Your task to perform on an android device: Add apple airpods pro to the cart on costco.com, then select checkout. Image 0: 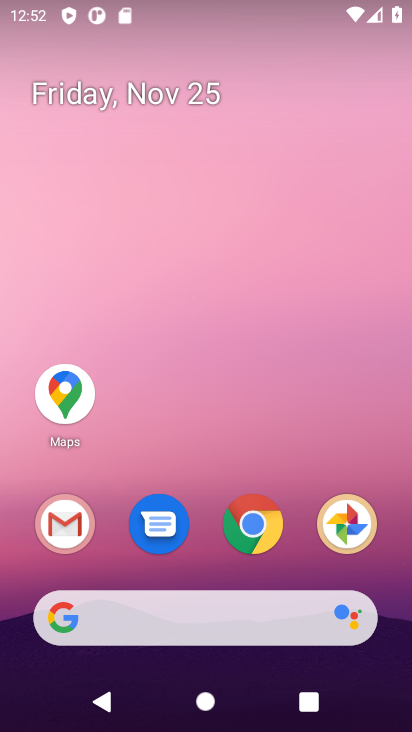
Step 0: click (254, 526)
Your task to perform on an android device: Add apple airpods pro to the cart on costco.com, then select checkout. Image 1: 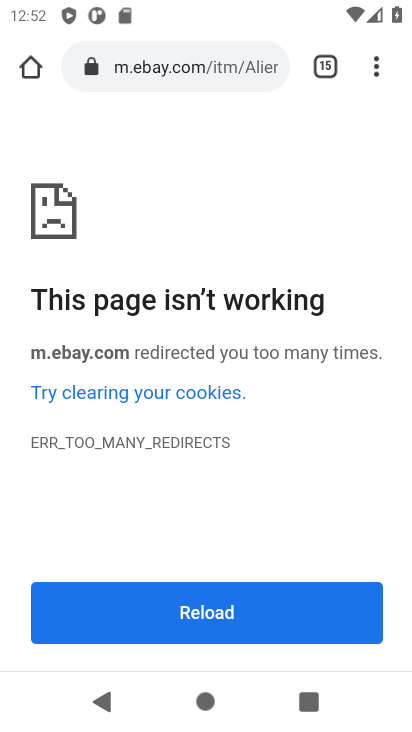
Step 1: click (160, 75)
Your task to perform on an android device: Add apple airpods pro to the cart on costco.com, then select checkout. Image 2: 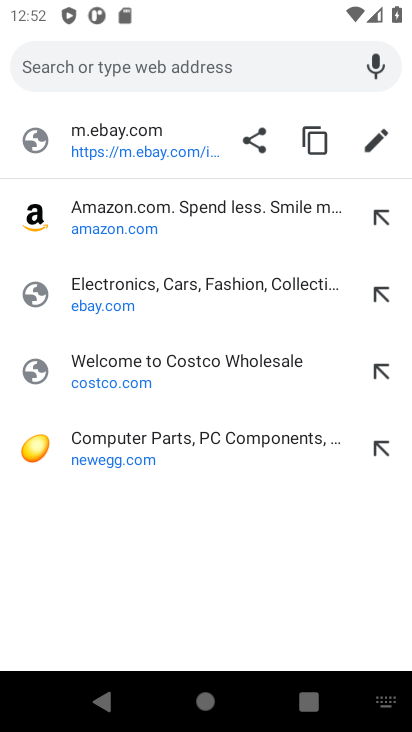
Step 2: click (90, 377)
Your task to perform on an android device: Add apple airpods pro to the cart on costco.com, then select checkout. Image 3: 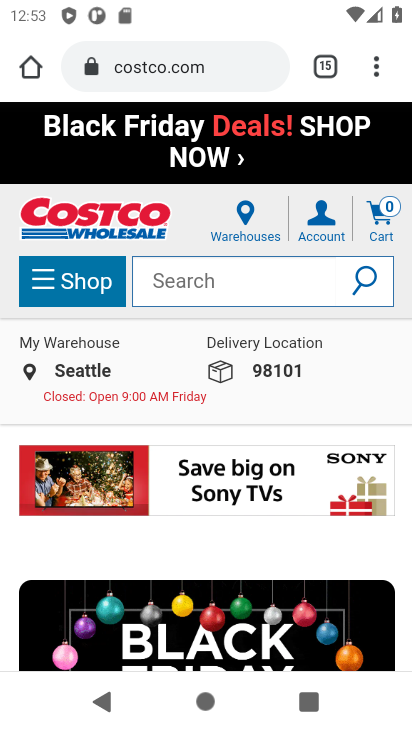
Step 3: click (192, 288)
Your task to perform on an android device: Add apple airpods pro to the cart on costco.com, then select checkout. Image 4: 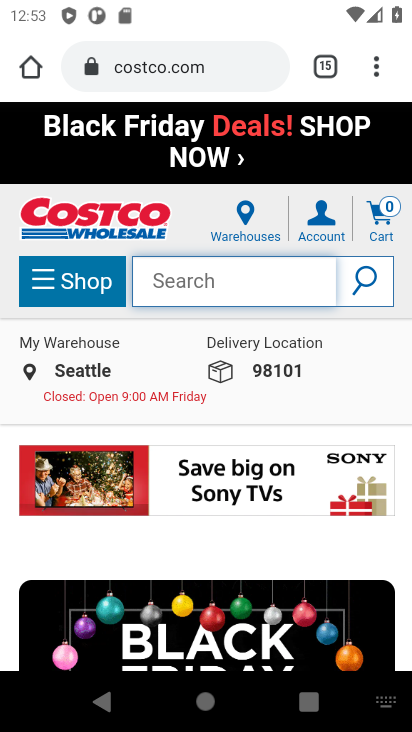
Step 4: type "apple airpods pro"
Your task to perform on an android device: Add apple airpods pro to the cart on costco.com, then select checkout. Image 5: 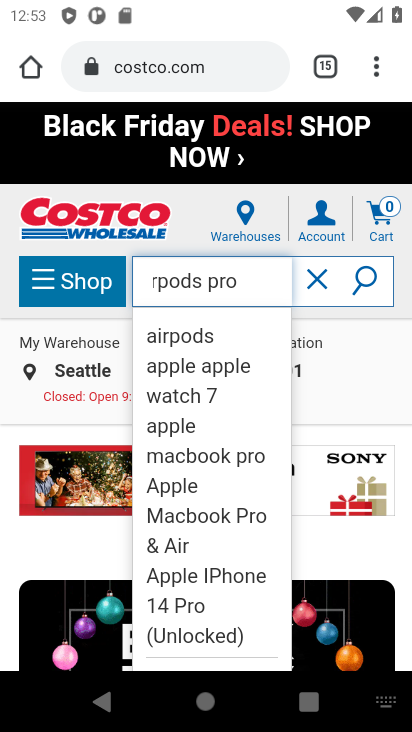
Step 5: click (363, 287)
Your task to perform on an android device: Add apple airpods pro to the cart on costco.com, then select checkout. Image 6: 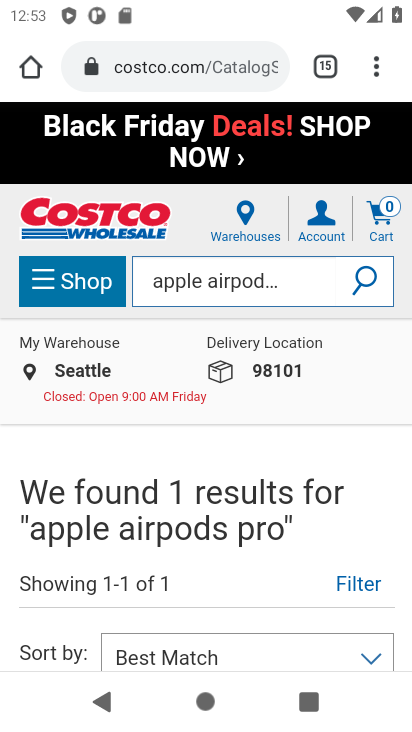
Step 6: drag from (166, 377) to (154, 163)
Your task to perform on an android device: Add apple airpods pro to the cart on costco.com, then select checkout. Image 7: 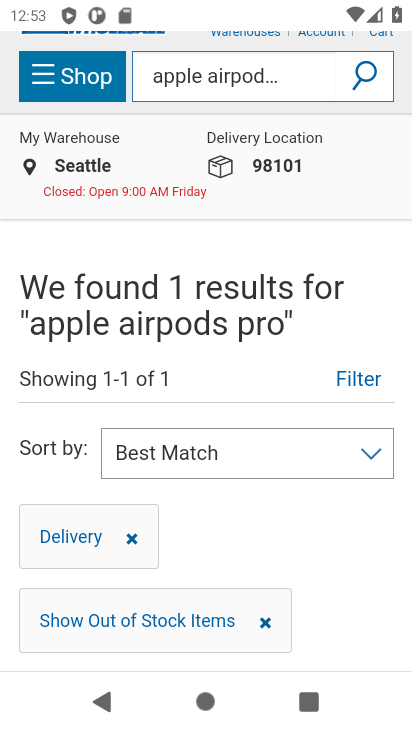
Step 7: drag from (127, 330) to (130, 162)
Your task to perform on an android device: Add apple airpods pro to the cart on costco.com, then select checkout. Image 8: 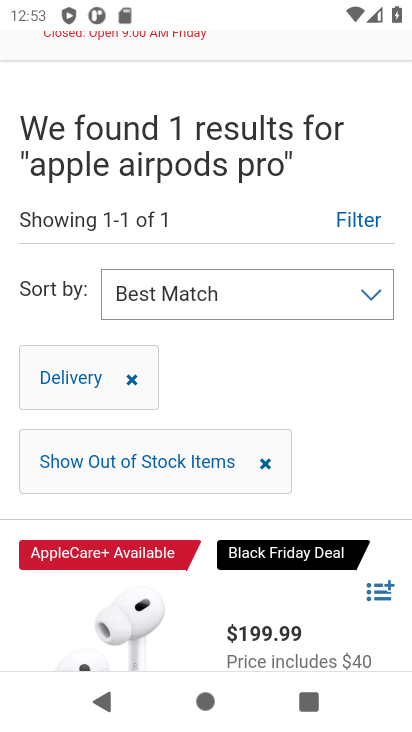
Step 8: drag from (197, 397) to (181, 128)
Your task to perform on an android device: Add apple airpods pro to the cart on costco.com, then select checkout. Image 9: 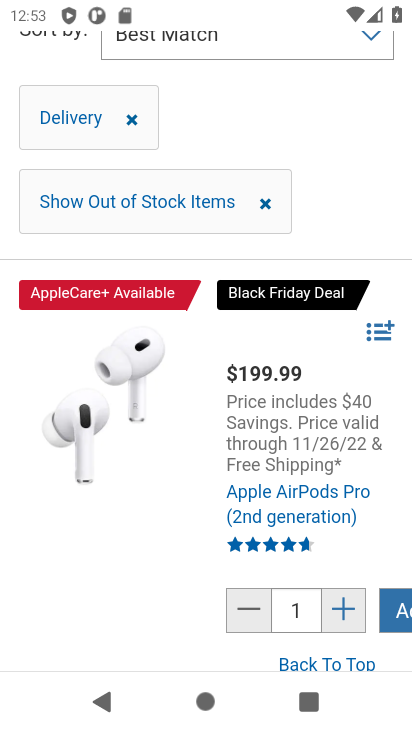
Step 9: drag from (163, 368) to (162, 211)
Your task to perform on an android device: Add apple airpods pro to the cart on costco.com, then select checkout. Image 10: 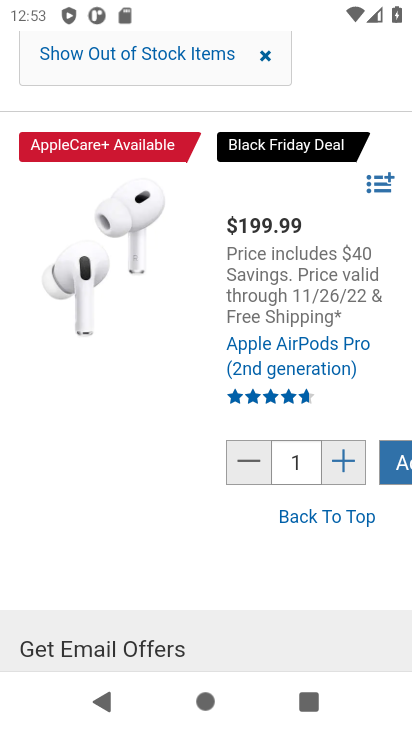
Step 10: click (403, 475)
Your task to perform on an android device: Add apple airpods pro to the cart on costco.com, then select checkout. Image 11: 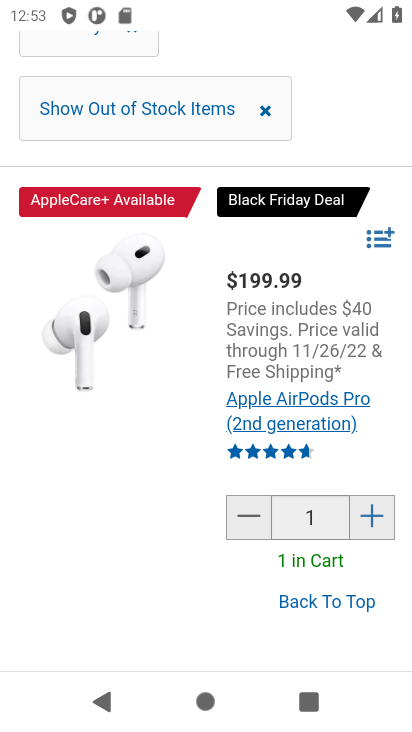
Step 11: drag from (260, 321) to (163, 580)
Your task to perform on an android device: Add apple airpods pro to the cart on costco.com, then select checkout. Image 12: 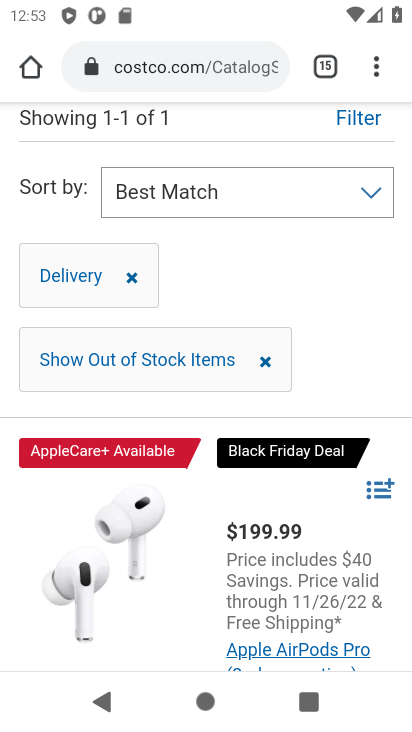
Step 12: drag from (319, 294) to (267, 622)
Your task to perform on an android device: Add apple airpods pro to the cart on costco.com, then select checkout. Image 13: 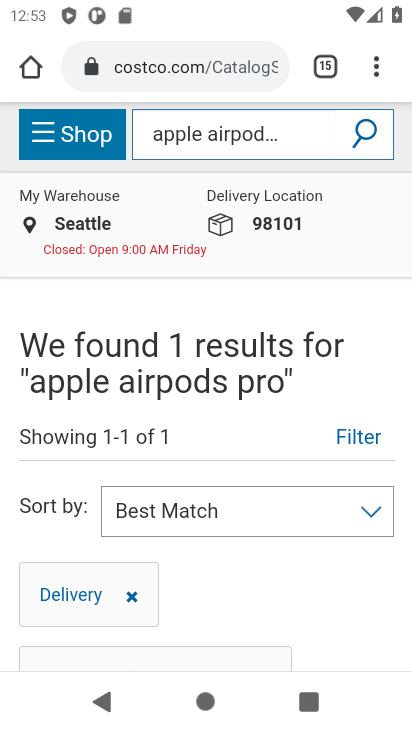
Step 13: drag from (342, 454) to (333, 512)
Your task to perform on an android device: Add apple airpods pro to the cart on costco.com, then select checkout. Image 14: 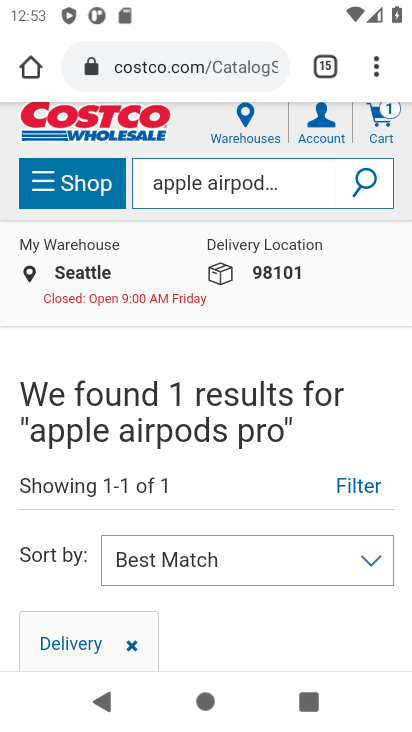
Step 14: click (379, 121)
Your task to perform on an android device: Add apple airpods pro to the cart on costco.com, then select checkout. Image 15: 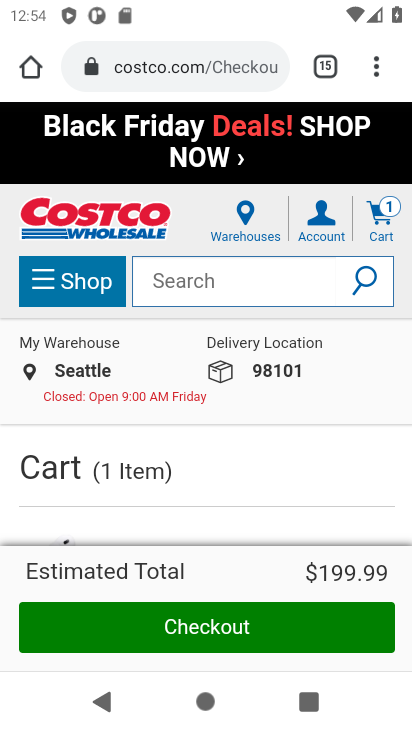
Step 15: click (187, 627)
Your task to perform on an android device: Add apple airpods pro to the cart on costco.com, then select checkout. Image 16: 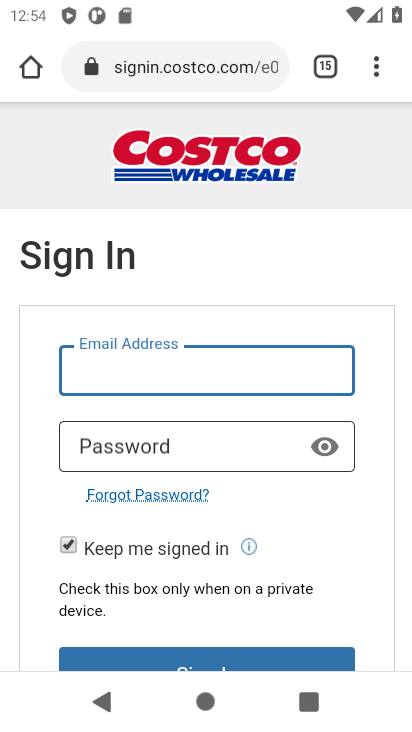
Step 16: task complete